Your task to perform on an android device: install app "Google News" Image 0: 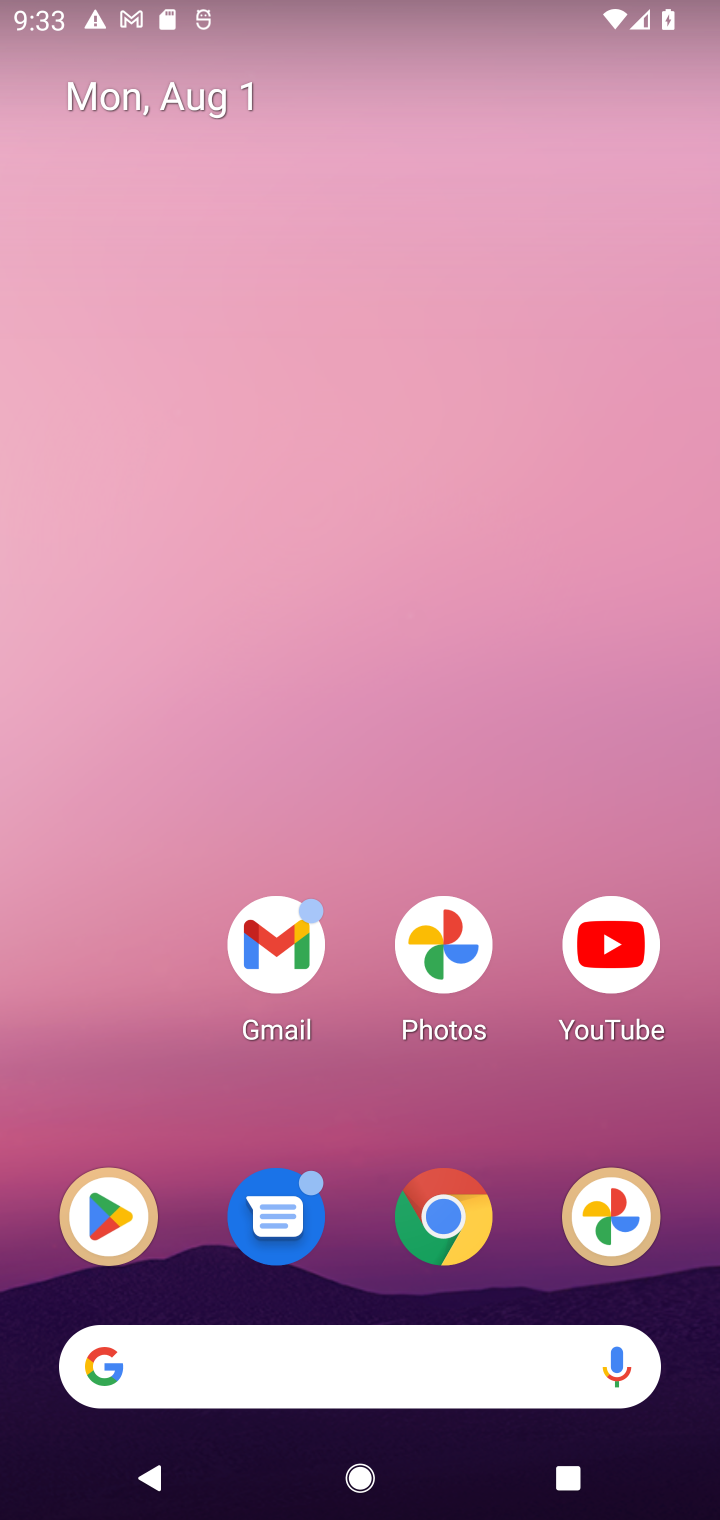
Step 0: click (105, 1235)
Your task to perform on an android device: install app "Google News" Image 1: 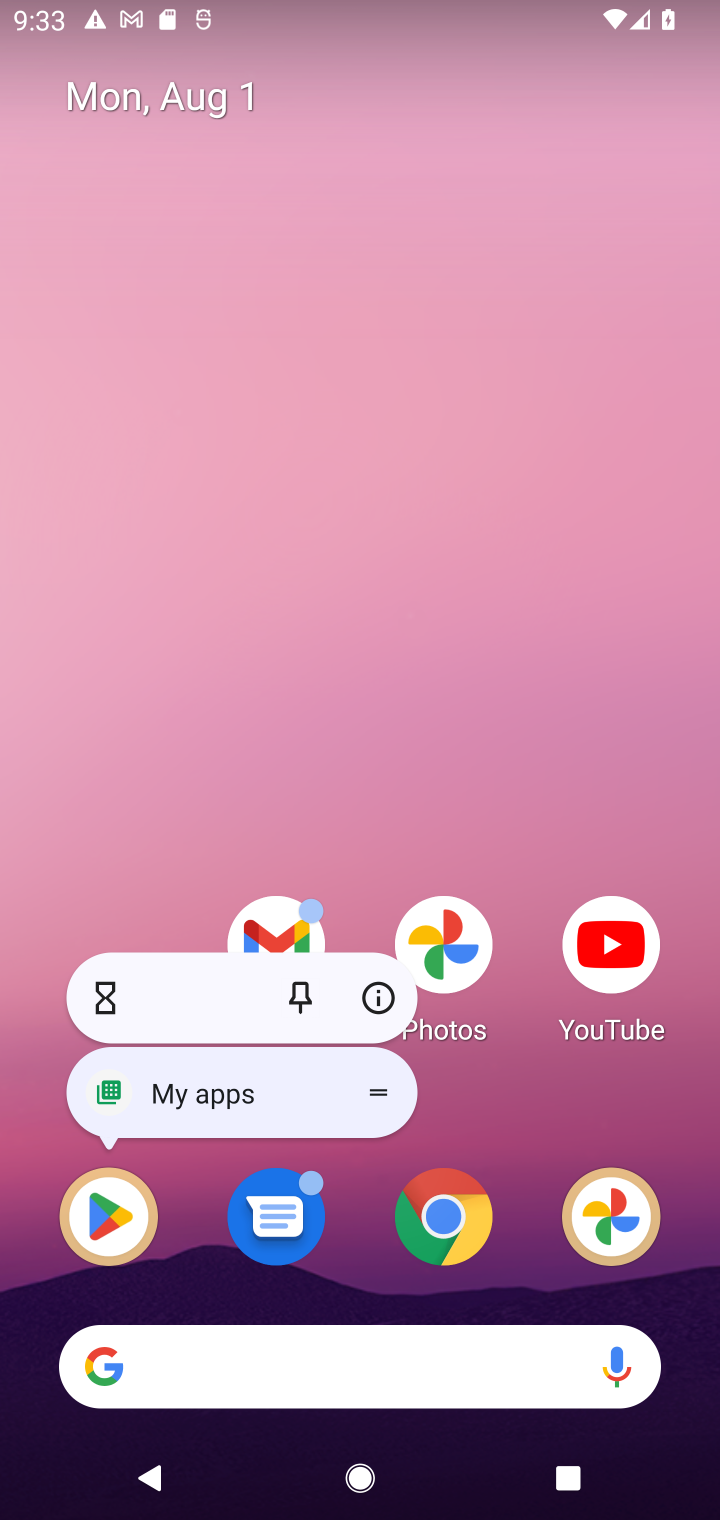
Step 1: click (105, 1222)
Your task to perform on an android device: install app "Google News" Image 2: 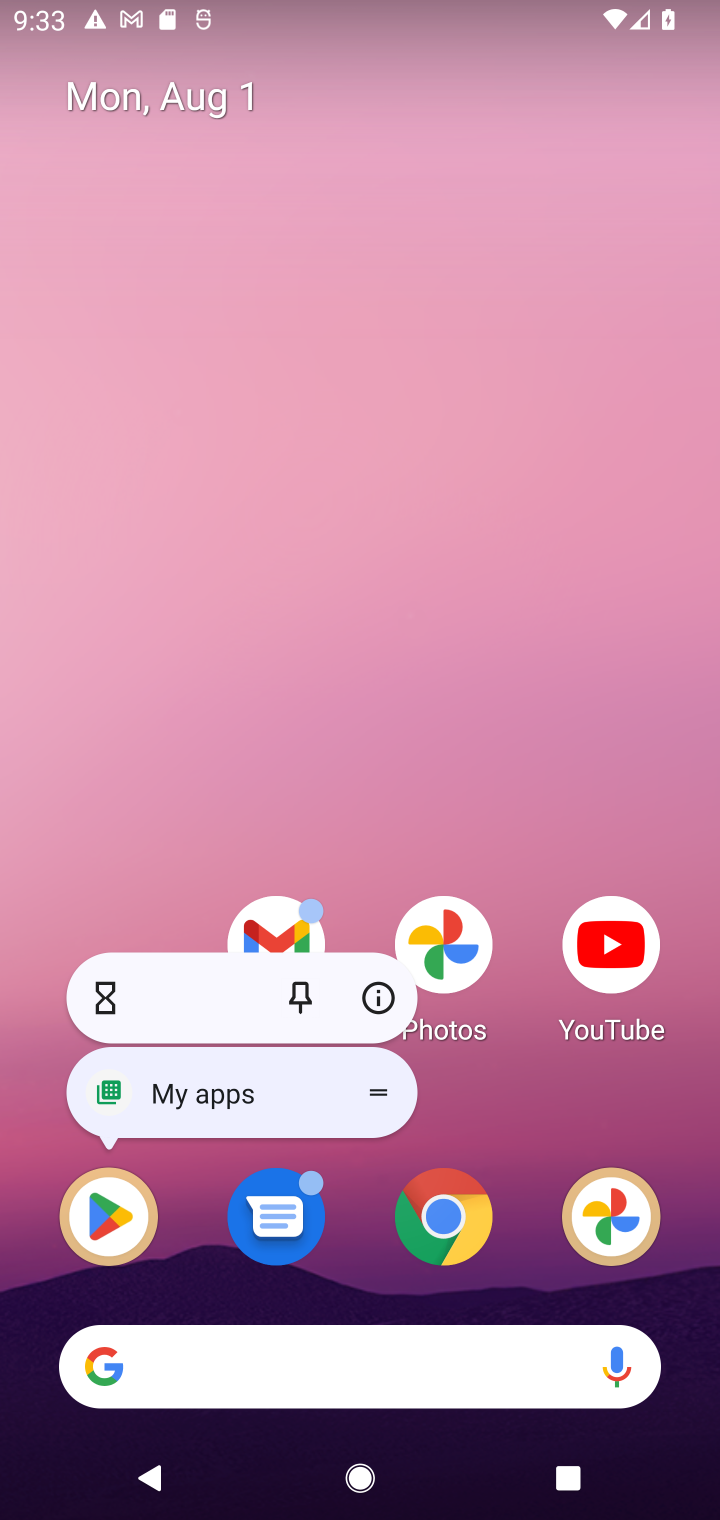
Step 2: click (105, 1222)
Your task to perform on an android device: install app "Google News" Image 3: 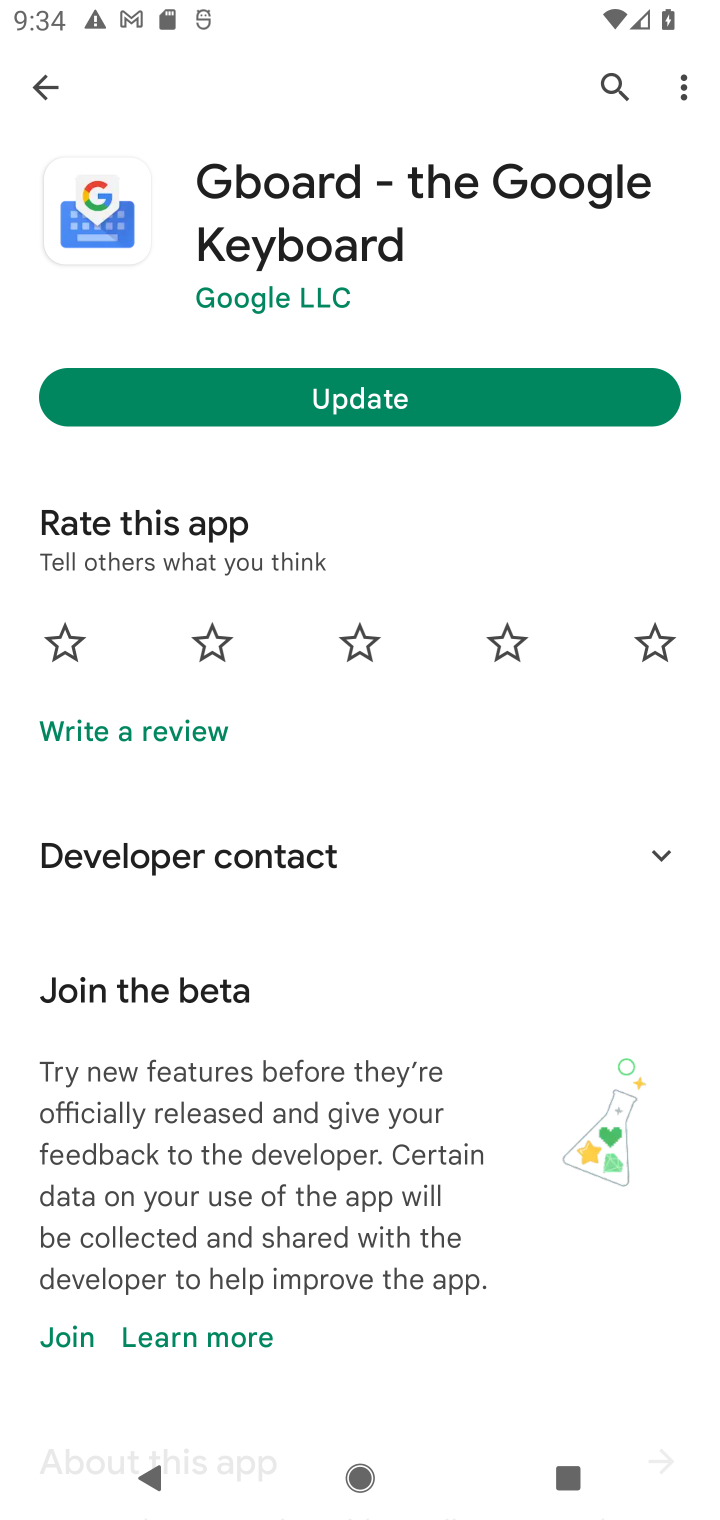
Step 3: click (620, 78)
Your task to perform on an android device: install app "Google News" Image 4: 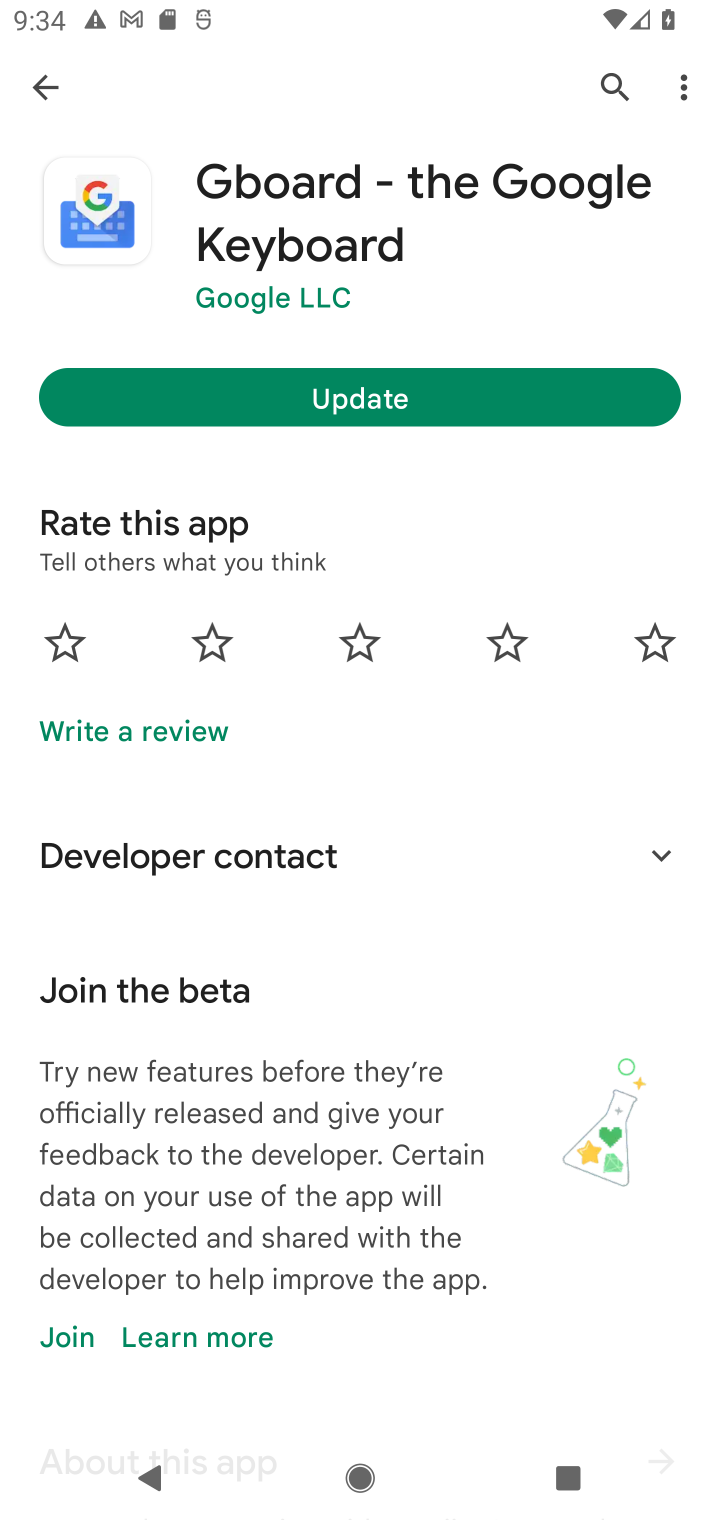
Step 4: click (613, 87)
Your task to perform on an android device: install app "Google News" Image 5: 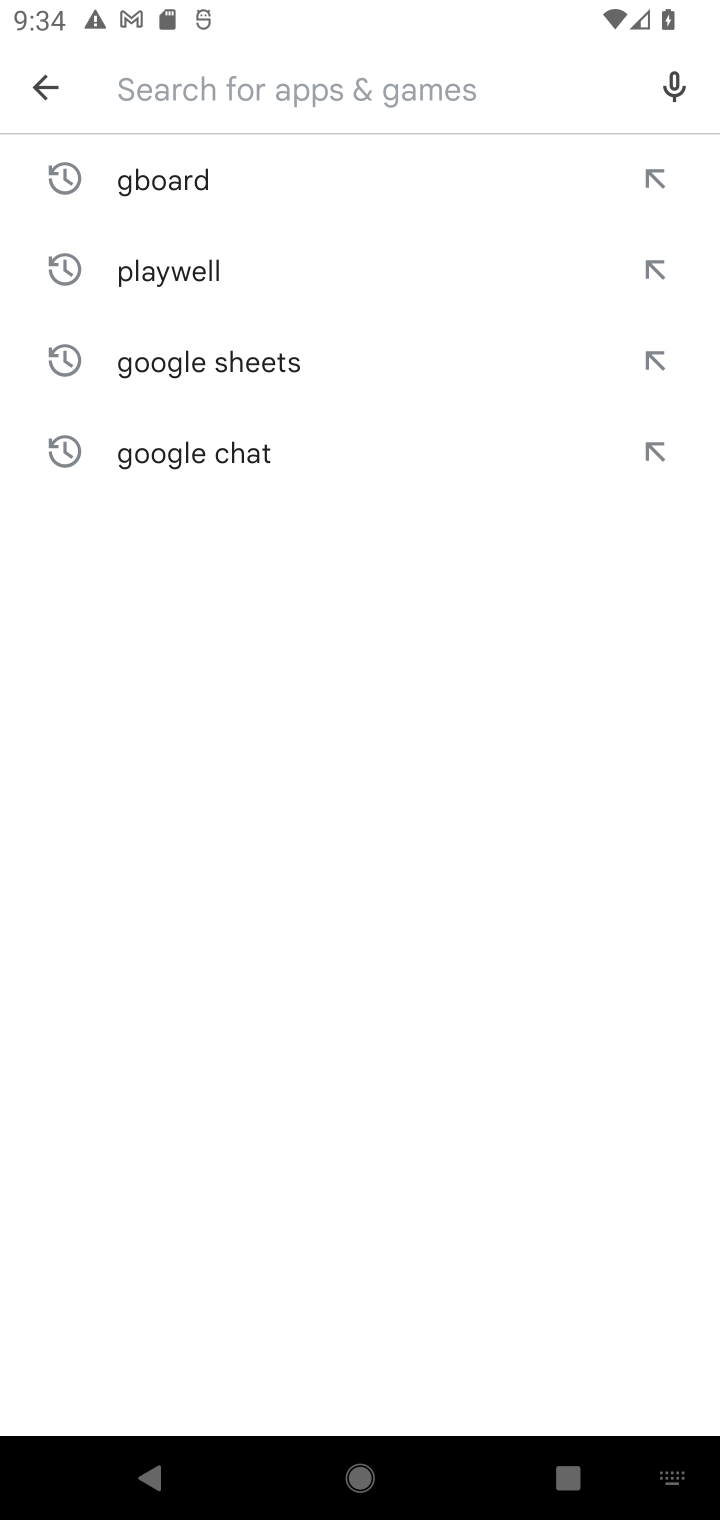
Step 5: type "Google News"
Your task to perform on an android device: install app "Google News" Image 6: 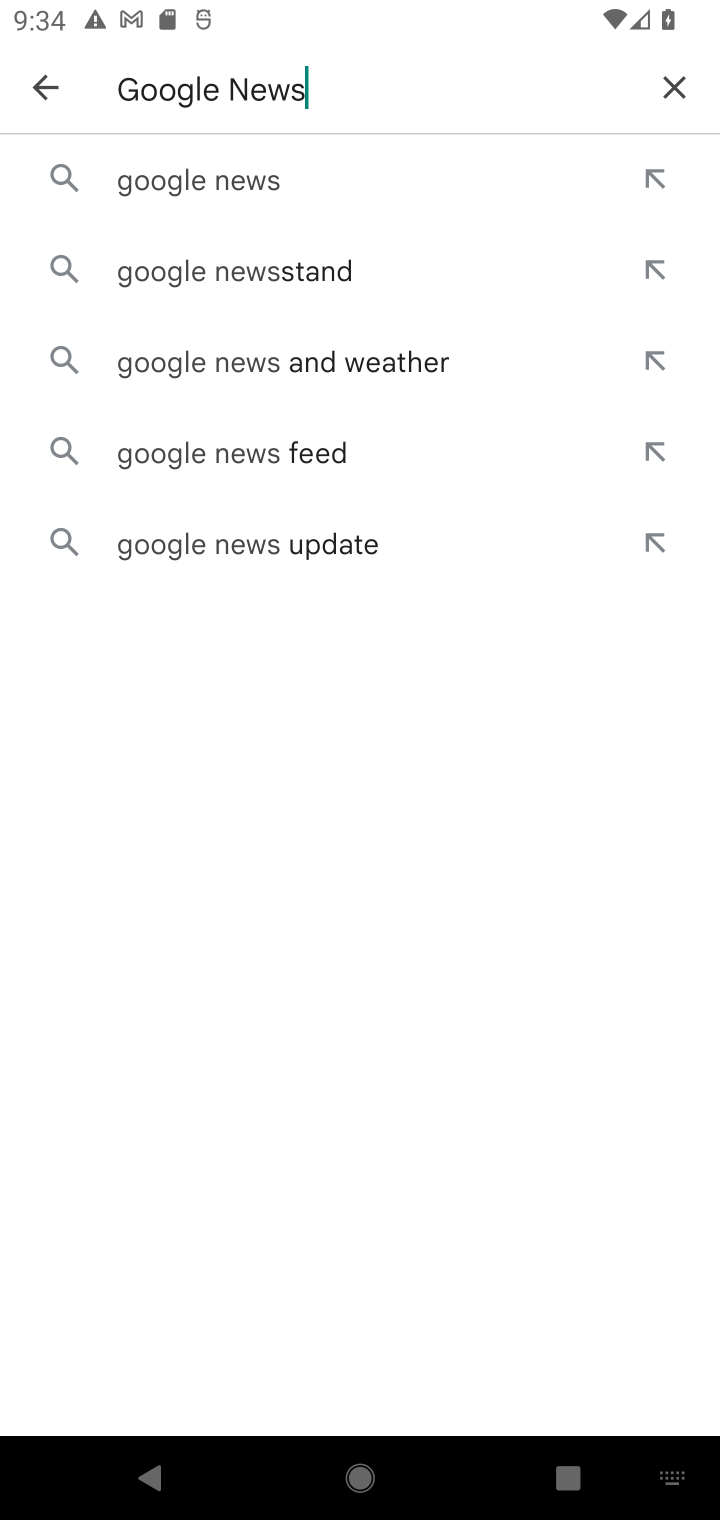
Step 6: click (182, 195)
Your task to perform on an android device: install app "Google News" Image 7: 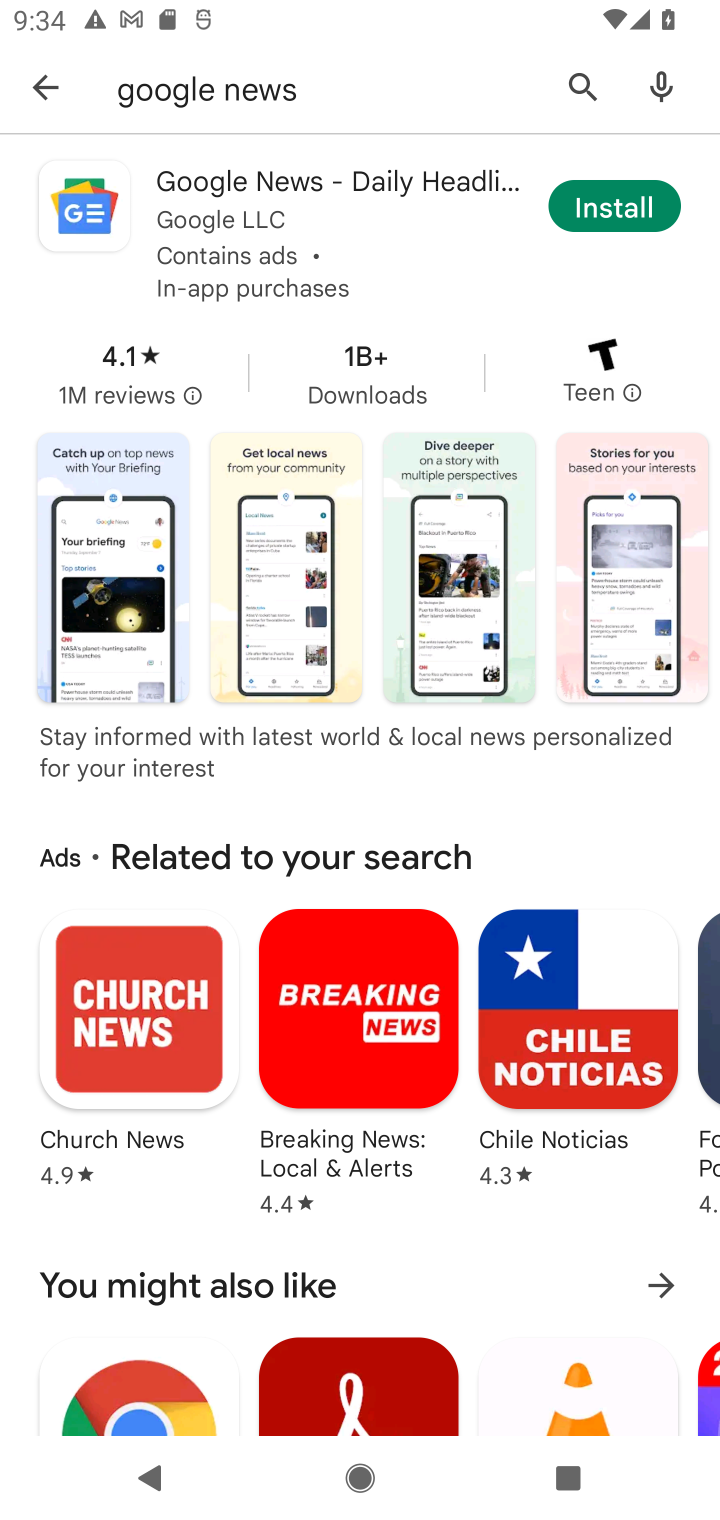
Step 7: click (587, 218)
Your task to perform on an android device: install app "Google News" Image 8: 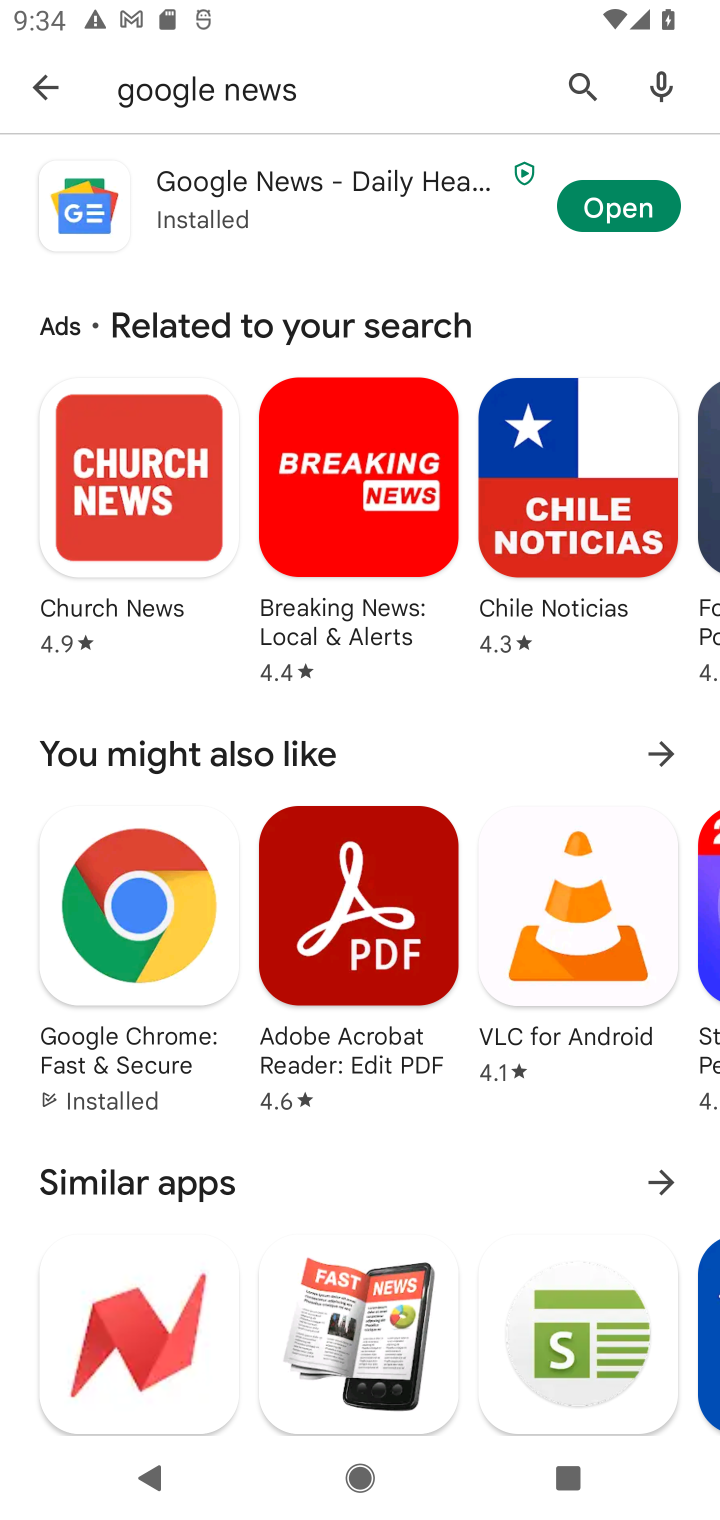
Step 8: task complete